Your task to perform on an android device: visit the assistant section in the google photos Image 0: 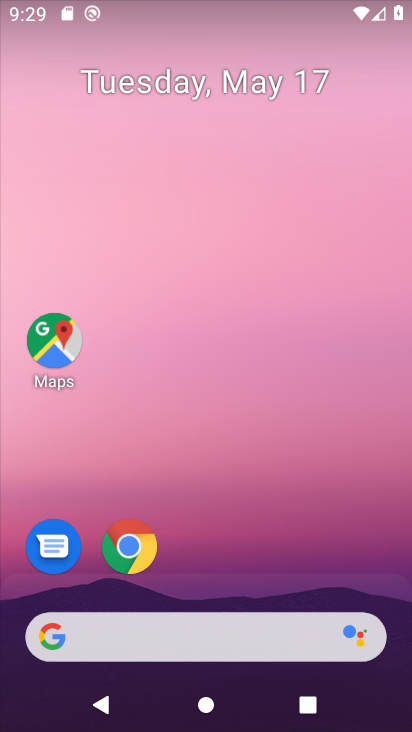
Step 0: drag from (282, 580) to (279, 174)
Your task to perform on an android device: visit the assistant section in the google photos Image 1: 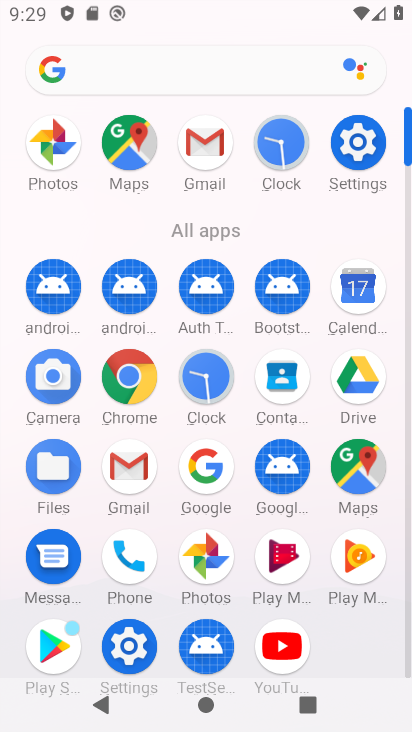
Step 1: click (202, 559)
Your task to perform on an android device: visit the assistant section in the google photos Image 2: 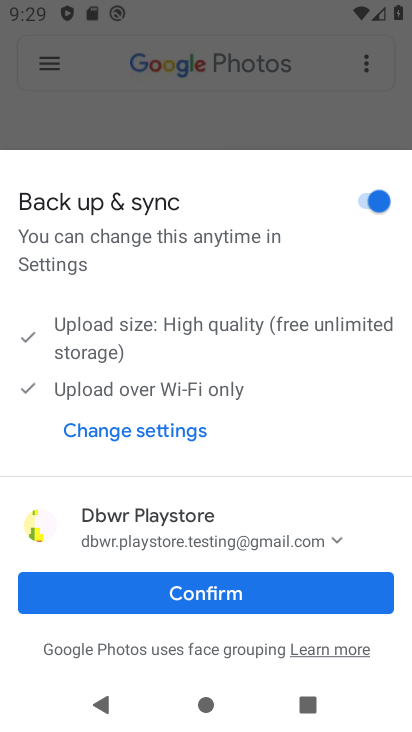
Step 2: click (235, 579)
Your task to perform on an android device: visit the assistant section in the google photos Image 3: 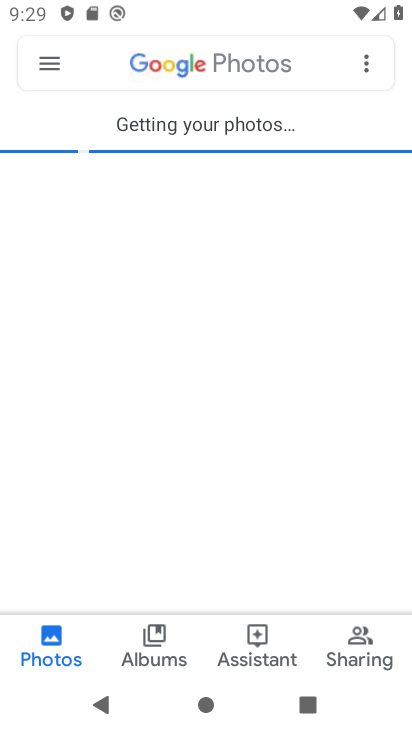
Step 3: click (248, 639)
Your task to perform on an android device: visit the assistant section in the google photos Image 4: 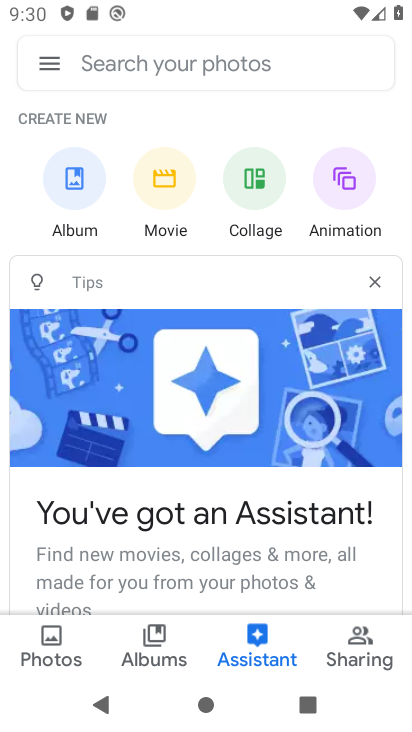
Step 4: task complete